Your task to perform on an android device: Open Google Maps and go to "Timeline" Image 0: 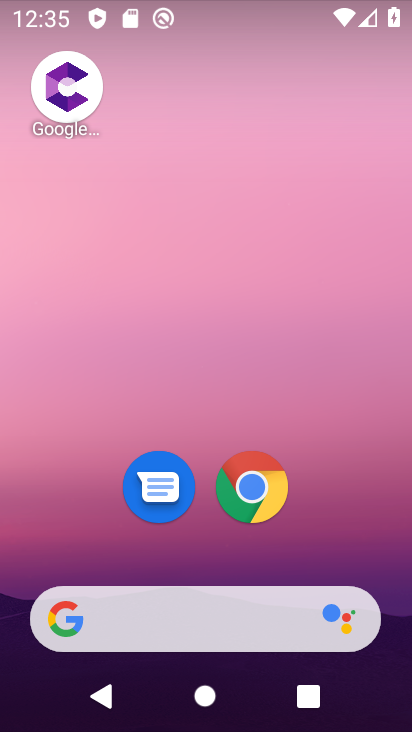
Step 0: drag from (64, 543) to (135, 99)
Your task to perform on an android device: Open Google Maps and go to "Timeline" Image 1: 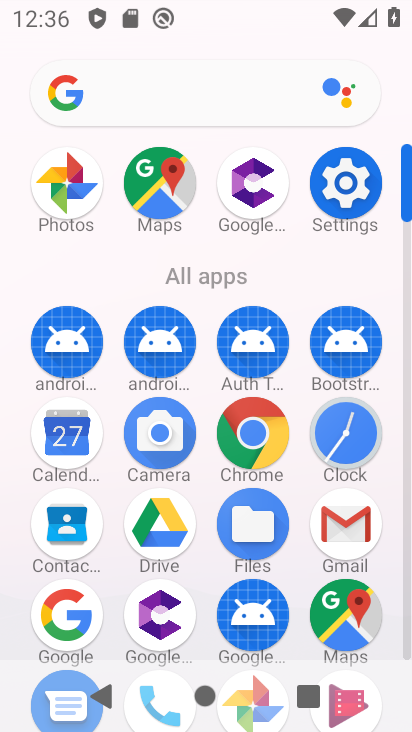
Step 1: click (166, 197)
Your task to perform on an android device: Open Google Maps and go to "Timeline" Image 2: 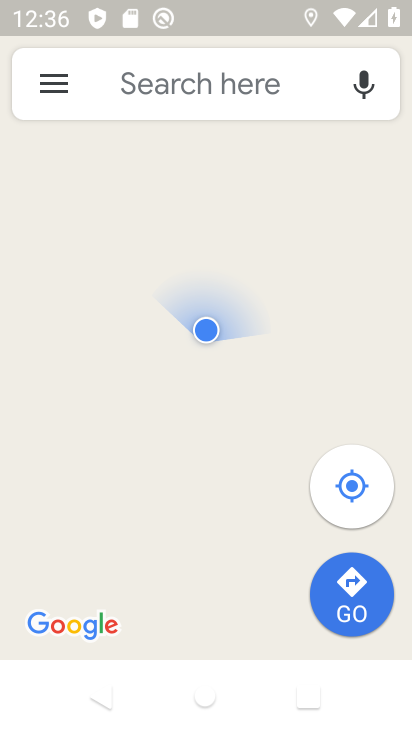
Step 2: click (55, 76)
Your task to perform on an android device: Open Google Maps and go to "Timeline" Image 3: 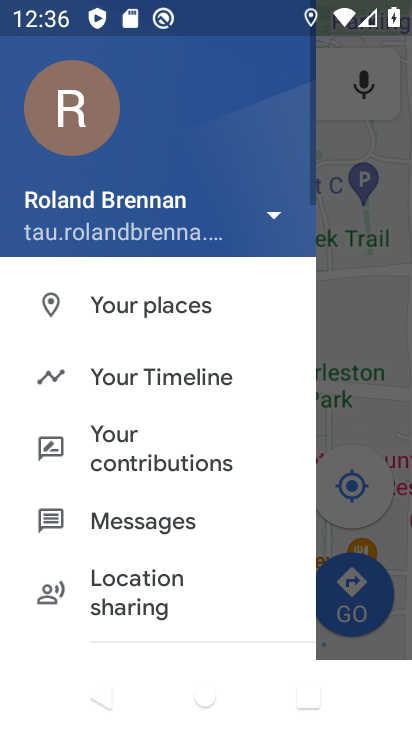
Step 3: click (181, 368)
Your task to perform on an android device: Open Google Maps and go to "Timeline" Image 4: 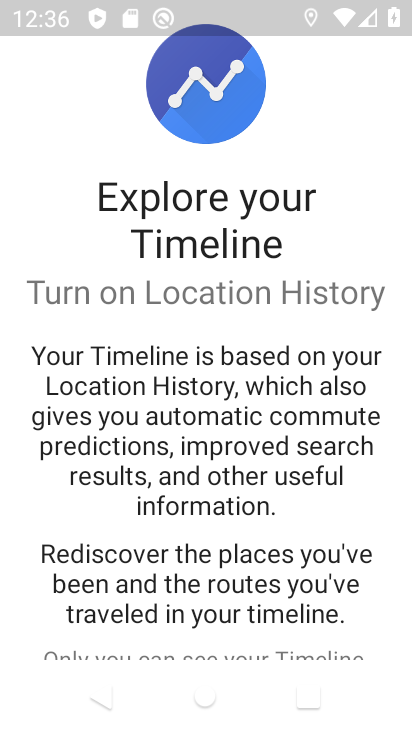
Step 4: task complete